Your task to perform on an android device: Open ESPN.com Image 0: 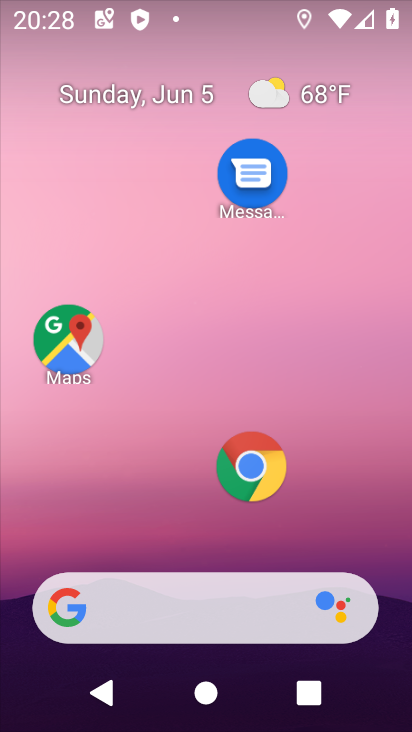
Step 0: drag from (218, 561) to (234, 149)
Your task to perform on an android device: Open ESPN.com Image 1: 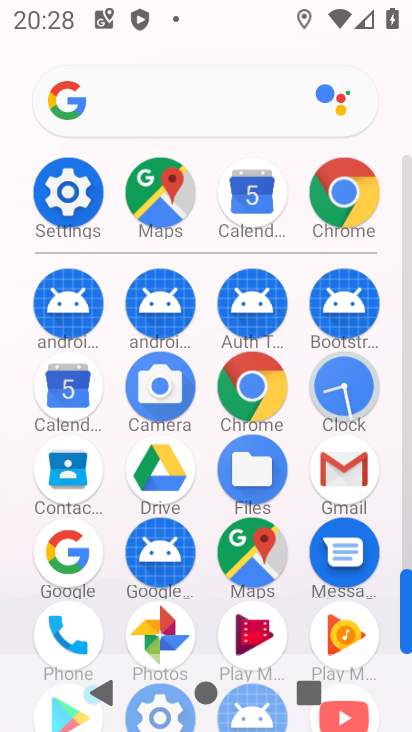
Step 1: click (162, 118)
Your task to perform on an android device: Open ESPN.com Image 2: 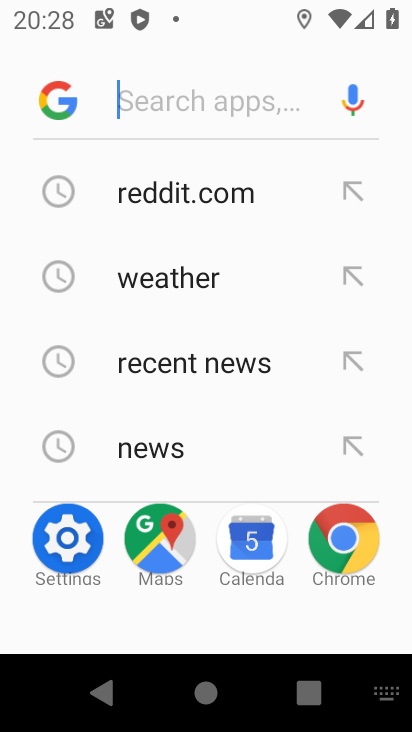
Step 2: type "espn.com"
Your task to perform on an android device: Open ESPN.com Image 3: 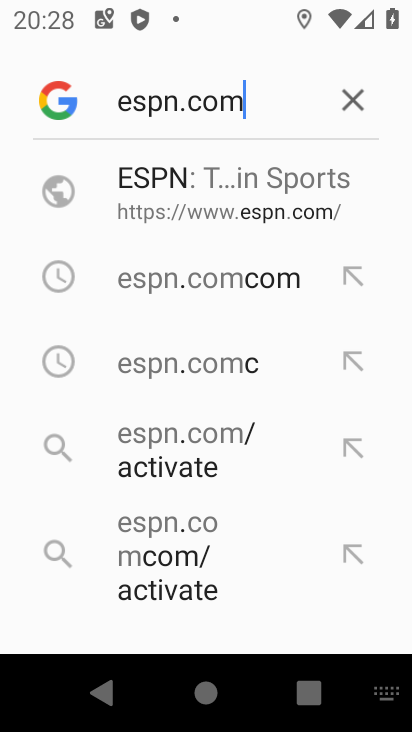
Step 3: click (214, 286)
Your task to perform on an android device: Open ESPN.com Image 4: 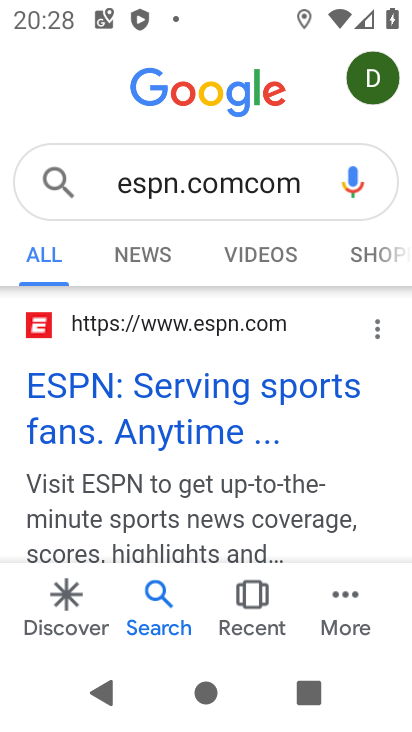
Step 4: drag from (242, 476) to (267, 200)
Your task to perform on an android device: Open ESPN.com Image 5: 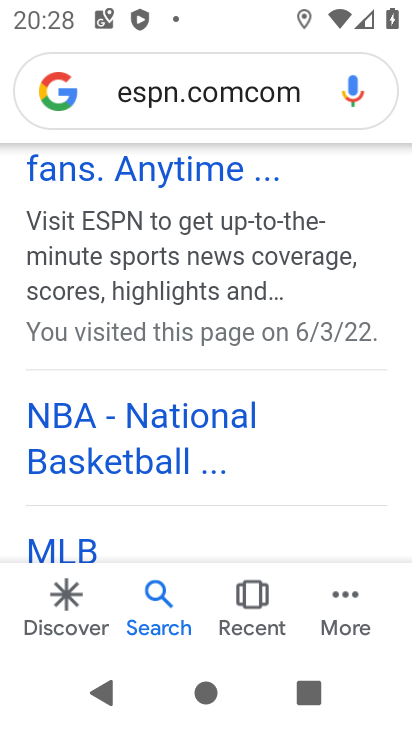
Step 5: drag from (235, 461) to (271, 175)
Your task to perform on an android device: Open ESPN.com Image 6: 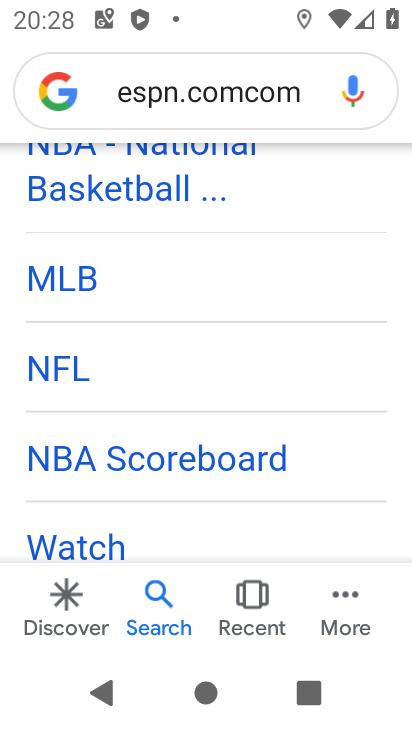
Step 6: drag from (241, 213) to (246, 641)
Your task to perform on an android device: Open ESPN.com Image 7: 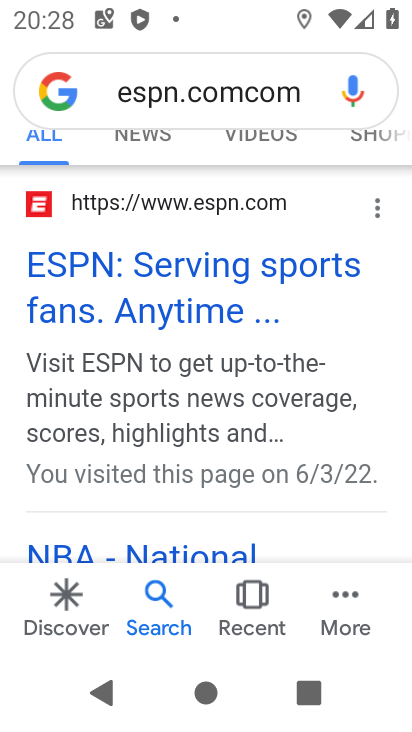
Step 7: click (153, 274)
Your task to perform on an android device: Open ESPN.com Image 8: 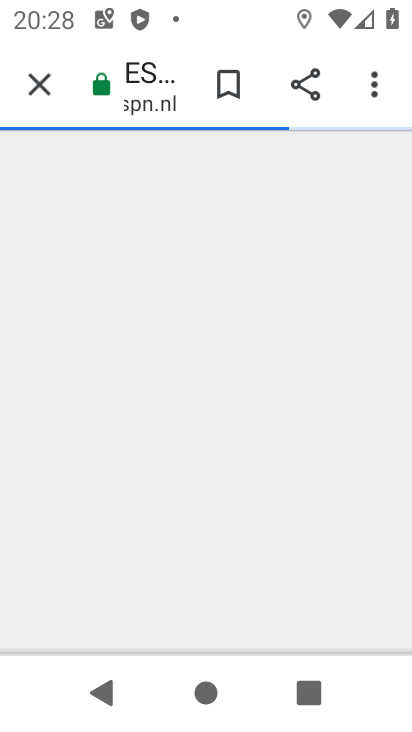
Step 8: task complete